Your task to perform on an android device: Open wifi settings Image 0: 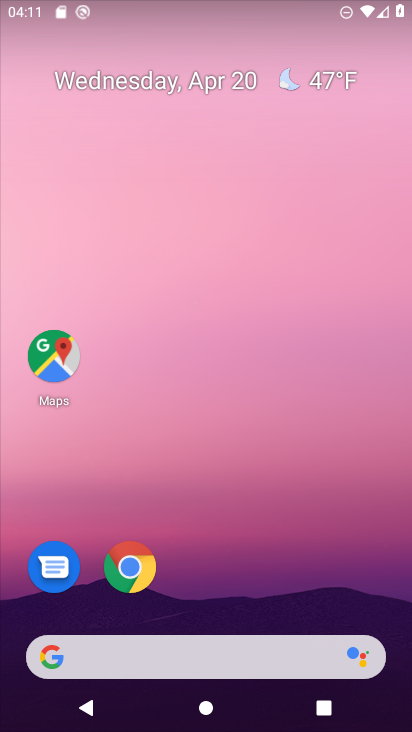
Step 0: drag from (216, 7) to (312, 617)
Your task to perform on an android device: Open wifi settings Image 1: 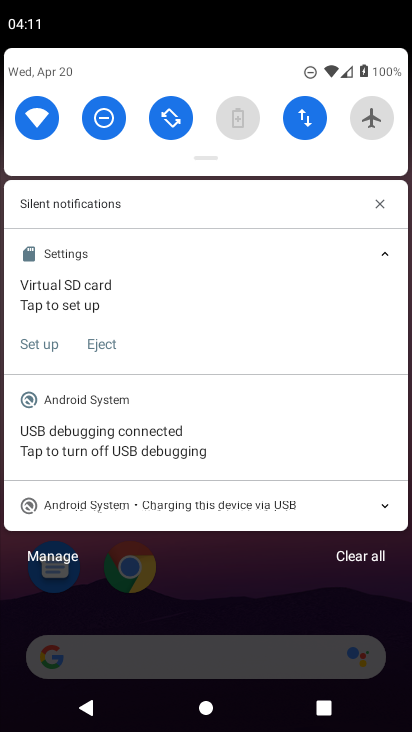
Step 1: click (29, 120)
Your task to perform on an android device: Open wifi settings Image 2: 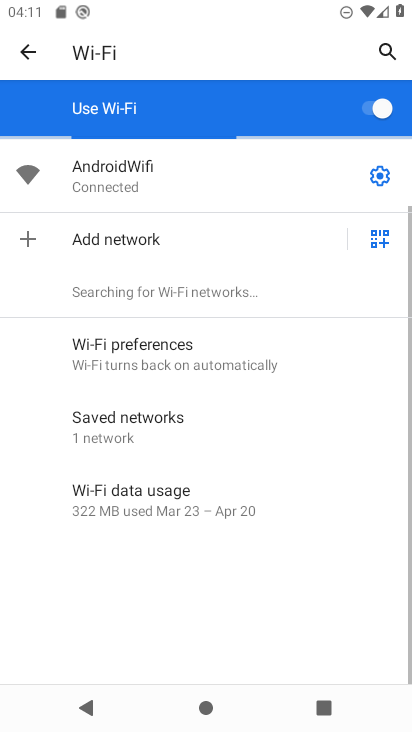
Step 2: task complete